Your task to perform on an android device: check the backup settings in the google photos Image 0: 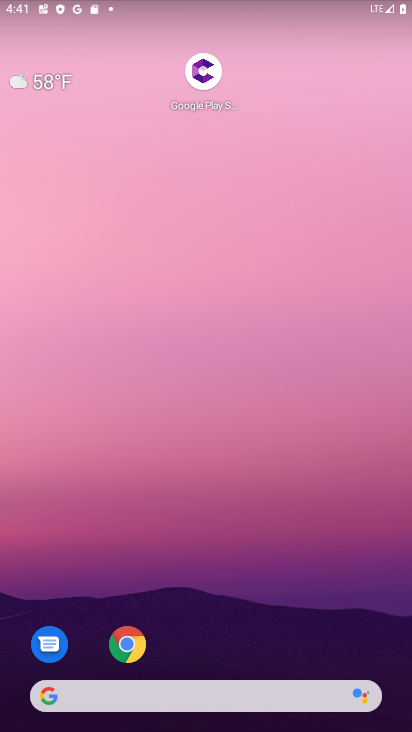
Step 0: press home button
Your task to perform on an android device: check the backup settings in the google photos Image 1: 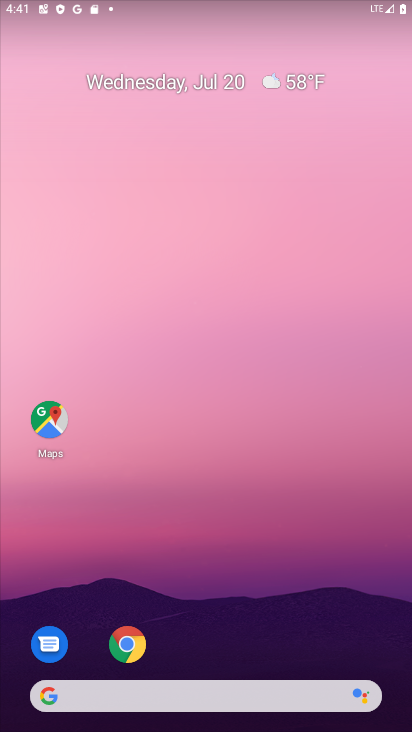
Step 1: drag from (237, 667) to (256, 0)
Your task to perform on an android device: check the backup settings in the google photos Image 2: 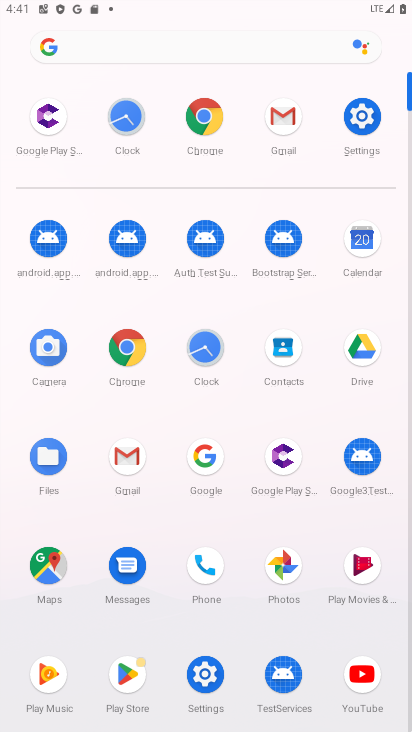
Step 2: click (293, 555)
Your task to perform on an android device: check the backup settings in the google photos Image 3: 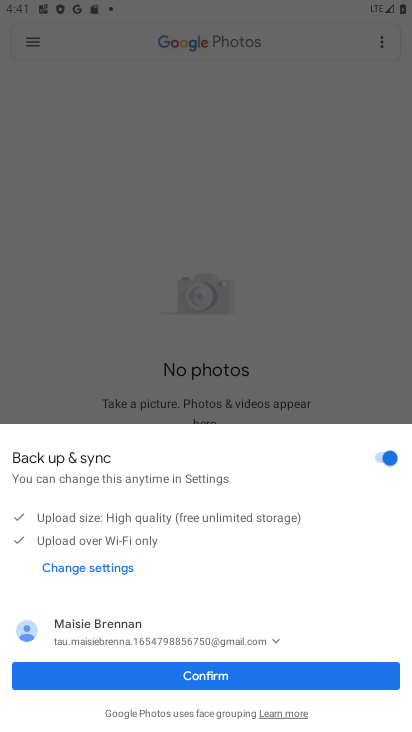
Step 3: click (229, 680)
Your task to perform on an android device: check the backup settings in the google photos Image 4: 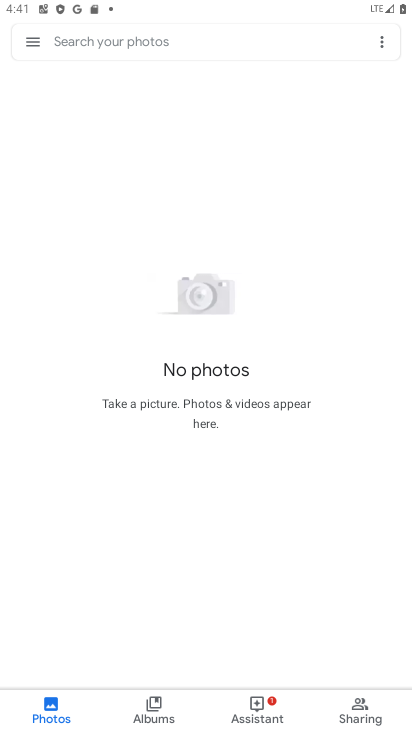
Step 4: click (29, 45)
Your task to perform on an android device: check the backup settings in the google photos Image 5: 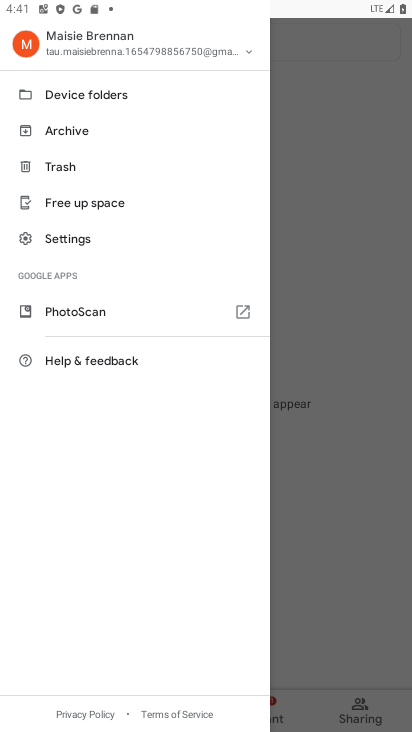
Step 5: click (56, 247)
Your task to perform on an android device: check the backup settings in the google photos Image 6: 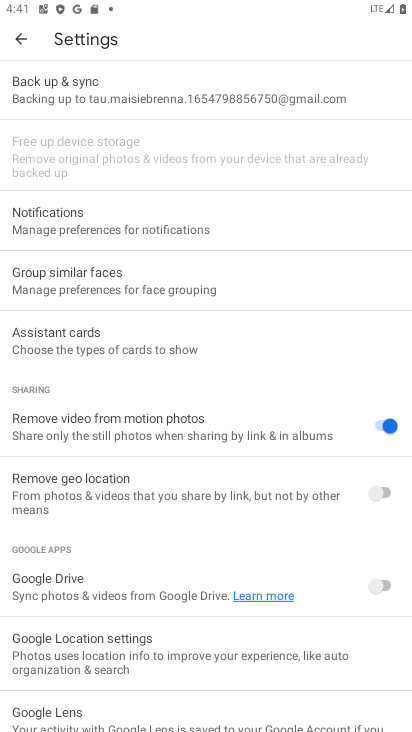
Step 6: click (56, 87)
Your task to perform on an android device: check the backup settings in the google photos Image 7: 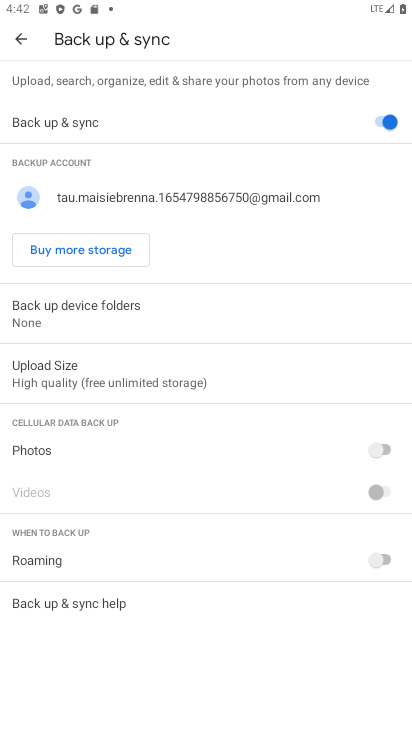
Step 7: task complete